Your task to perform on an android device: Open Chrome and go to the settings page Image 0: 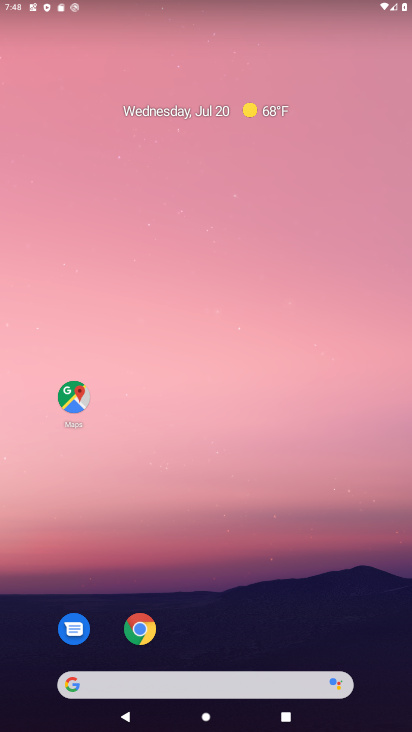
Step 0: drag from (325, 620) to (343, 58)
Your task to perform on an android device: Open Chrome and go to the settings page Image 1: 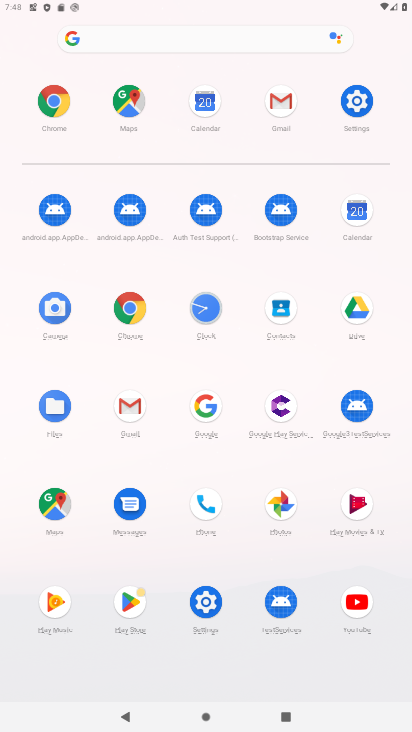
Step 1: click (129, 304)
Your task to perform on an android device: Open Chrome and go to the settings page Image 2: 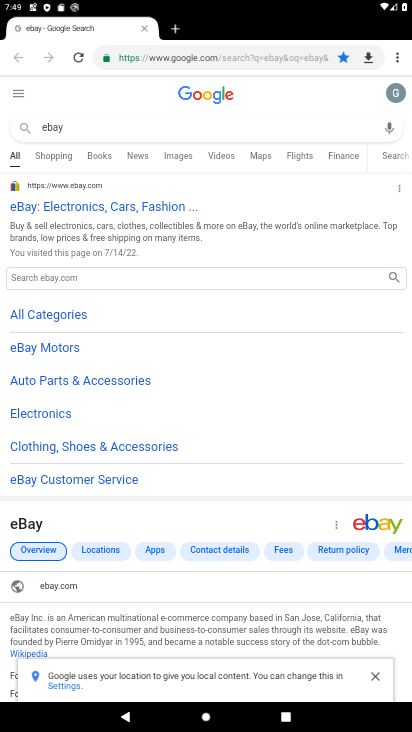
Step 2: click (400, 57)
Your task to perform on an android device: Open Chrome and go to the settings page Image 3: 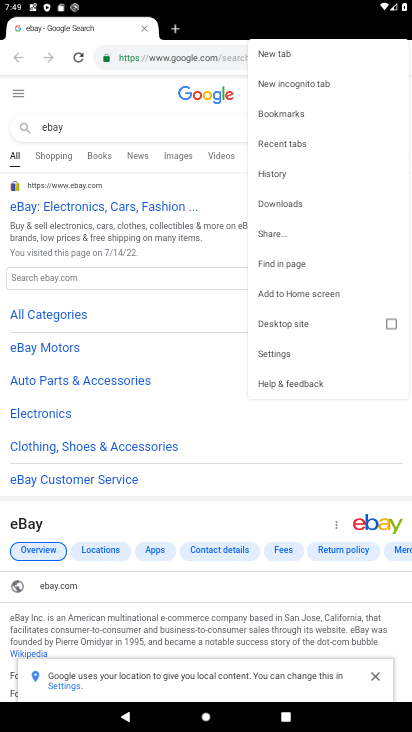
Step 3: click (287, 361)
Your task to perform on an android device: Open Chrome and go to the settings page Image 4: 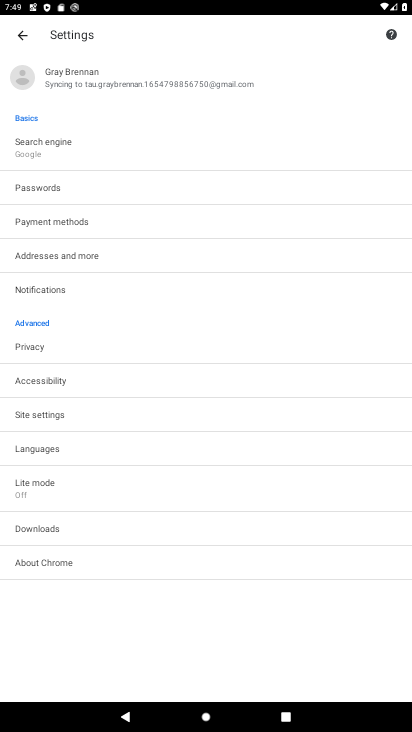
Step 4: task complete